Your task to perform on an android device: empty trash in google photos Image 0: 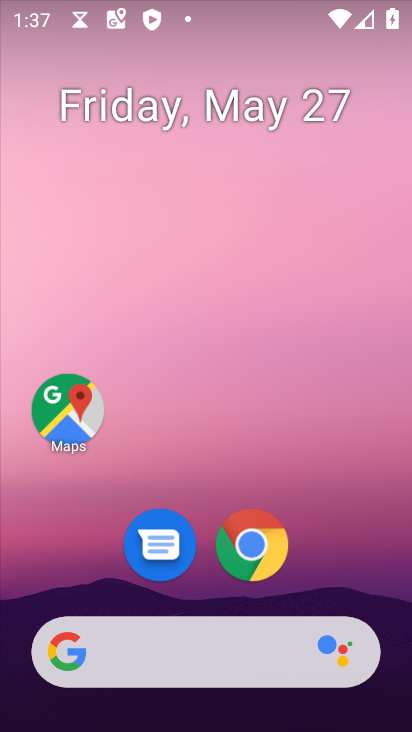
Step 0: drag from (335, 510) to (184, 40)
Your task to perform on an android device: empty trash in google photos Image 1: 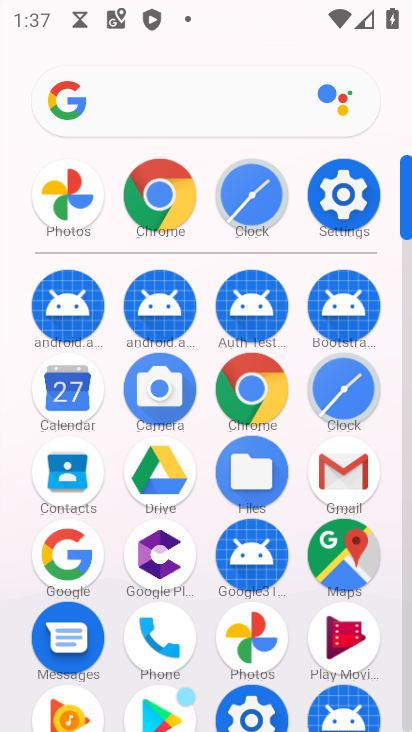
Step 1: drag from (295, 651) to (277, 279)
Your task to perform on an android device: empty trash in google photos Image 2: 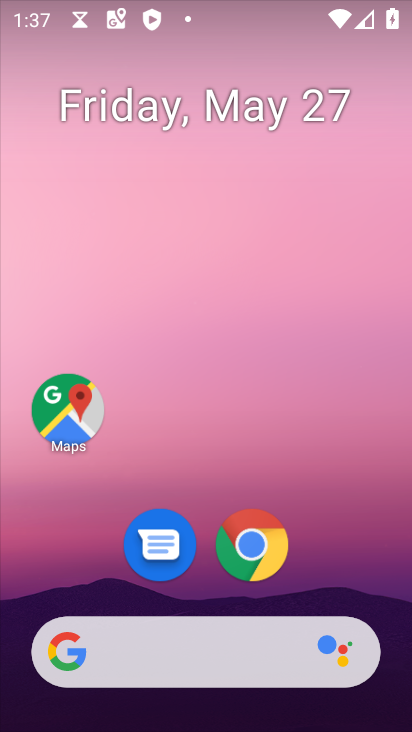
Step 2: drag from (344, 550) to (219, 23)
Your task to perform on an android device: empty trash in google photos Image 3: 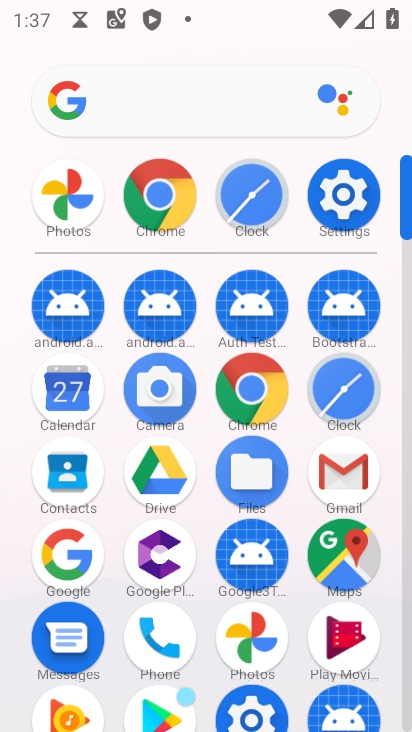
Step 3: click (262, 641)
Your task to perform on an android device: empty trash in google photos Image 4: 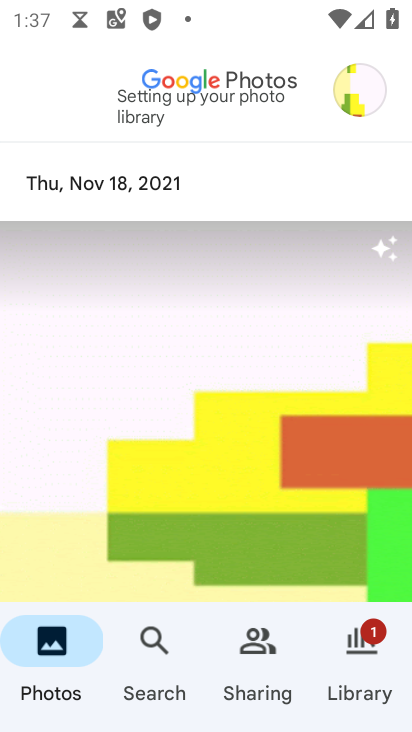
Step 4: click (376, 648)
Your task to perform on an android device: empty trash in google photos Image 5: 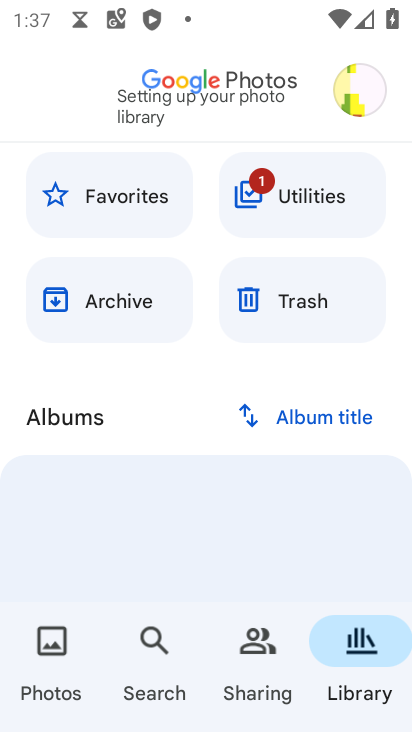
Step 5: click (299, 291)
Your task to perform on an android device: empty trash in google photos Image 6: 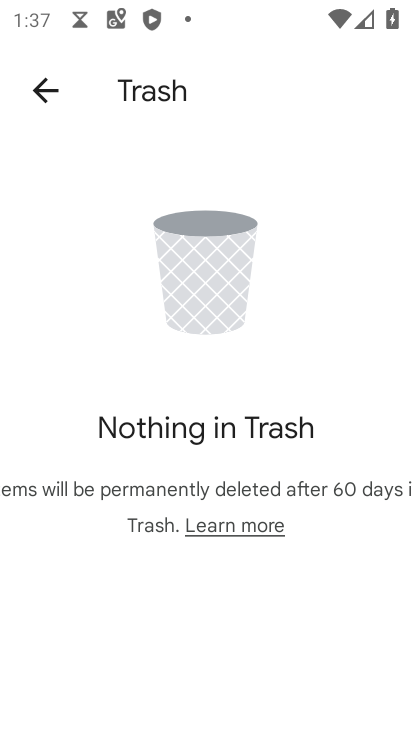
Step 6: task complete